Your task to perform on an android device: change the clock display to digital Image 0: 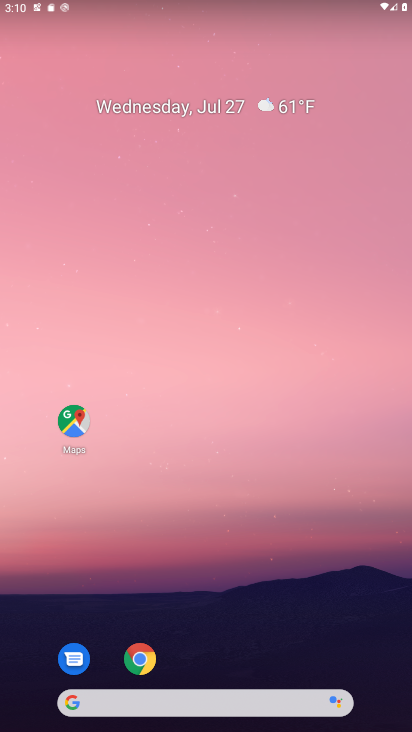
Step 0: drag from (185, 689) to (18, 227)
Your task to perform on an android device: change the clock display to digital Image 1: 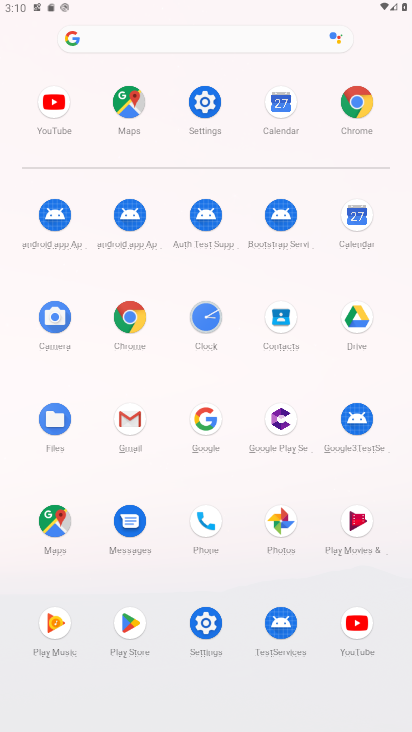
Step 1: click (214, 320)
Your task to perform on an android device: change the clock display to digital Image 2: 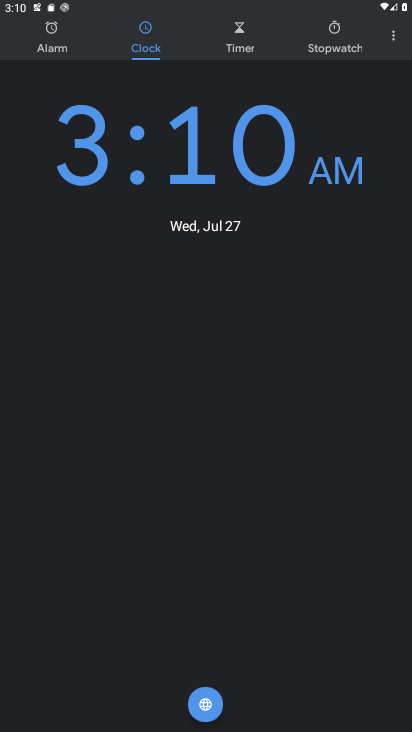
Step 2: click (392, 32)
Your task to perform on an android device: change the clock display to digital Image 3: 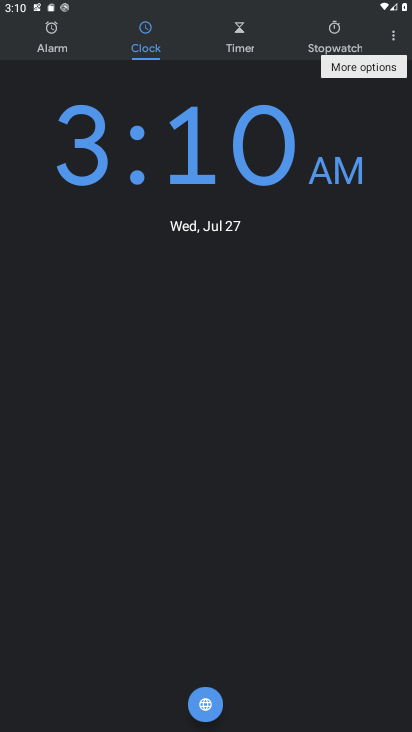
Step 3: click (392, 32)
Your task to perform on an android device: change the clock display to digital Image 4: 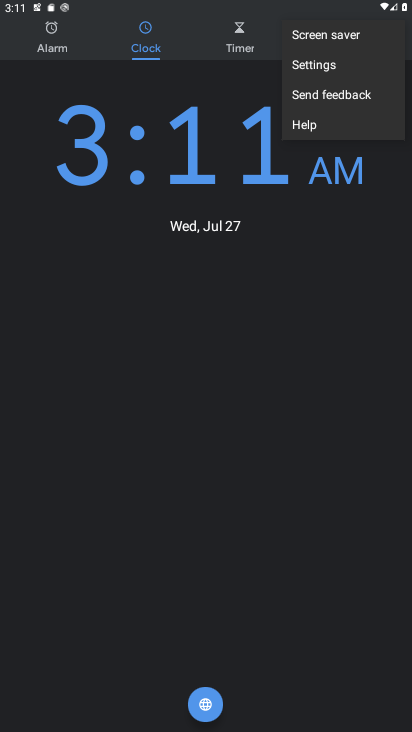
Step 4: click (330, 68)
Your task to perform on an android device: change the clock display to digital Image 5: 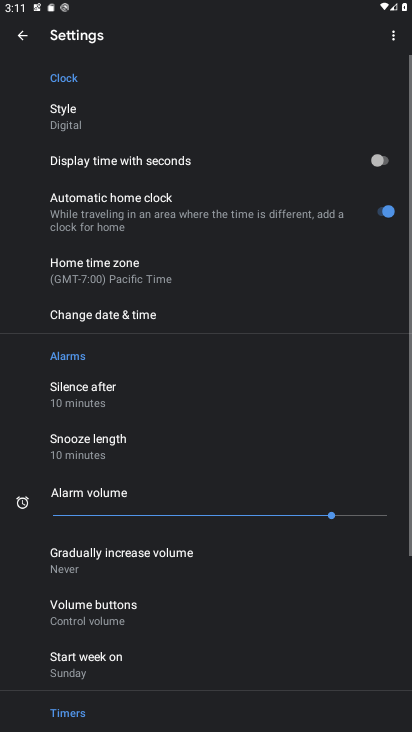
Step 5: click (74, 119)
Your task to perform on an android device: change the clock display to digital Image 6: 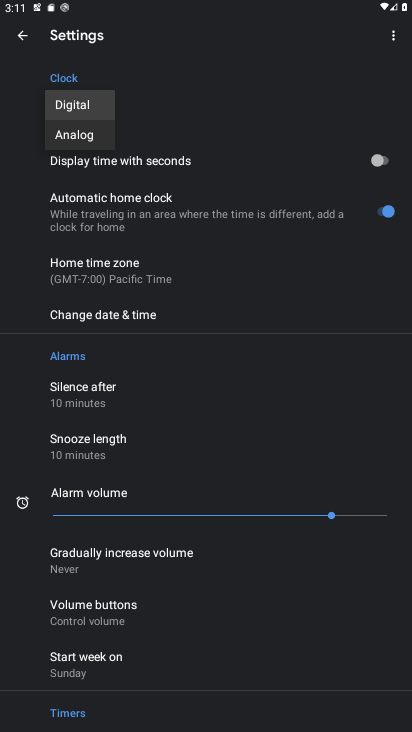
Step 6: click (90, 111)
Your task to perform on an android device: change the clock display to digital Image 7: 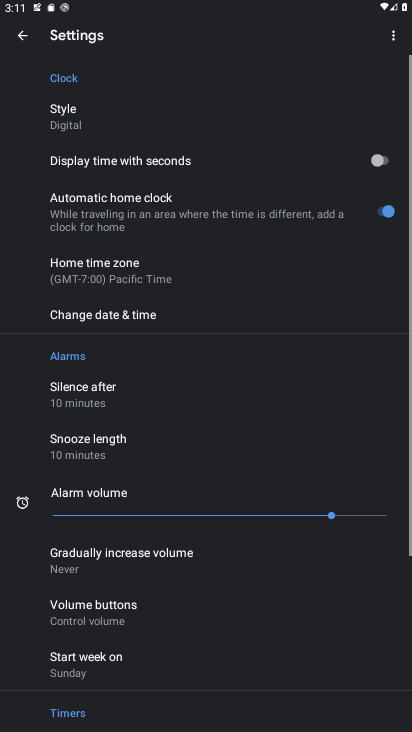
Step 7: task complete